Your task to perform on an android device: Open settings on Google Maps Image 0: 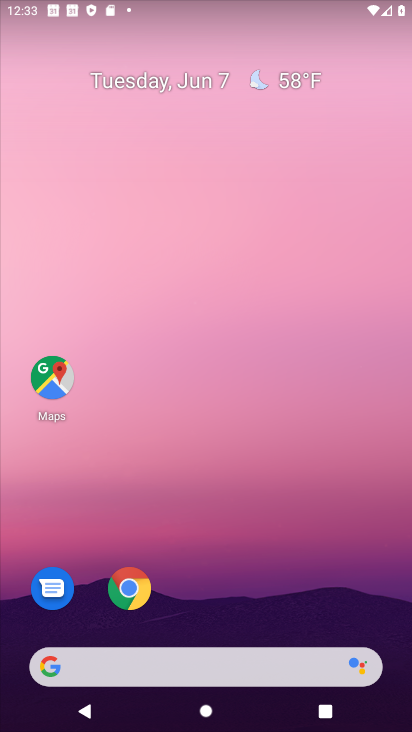
Step 0: click (295, 619)
Your task to perform on an android device: Open settings on Google Maps Image 1: 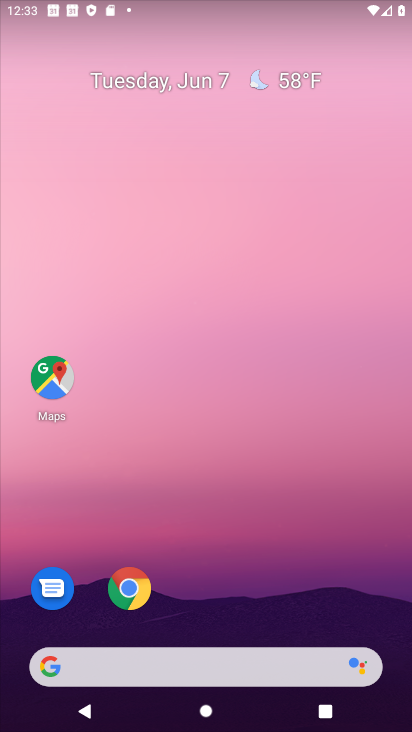
Step 1: click (51, 382)
Your task to perform on an android device: Open settings on Google Maps Image 2: 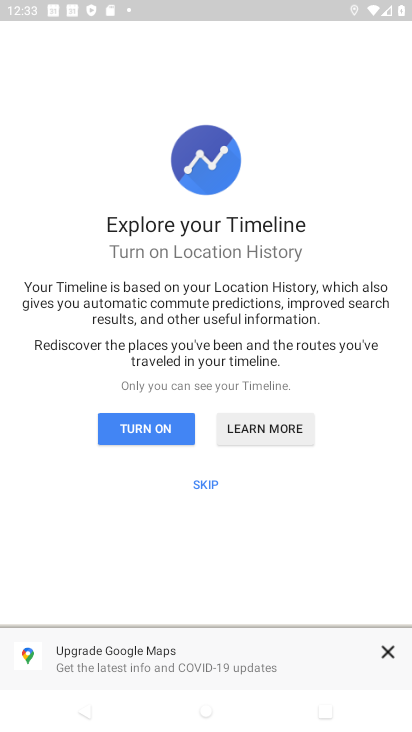
Step 2: task complete